Your task to perform on an android device: Open the phone app and click the voicemail tab. Image 0: 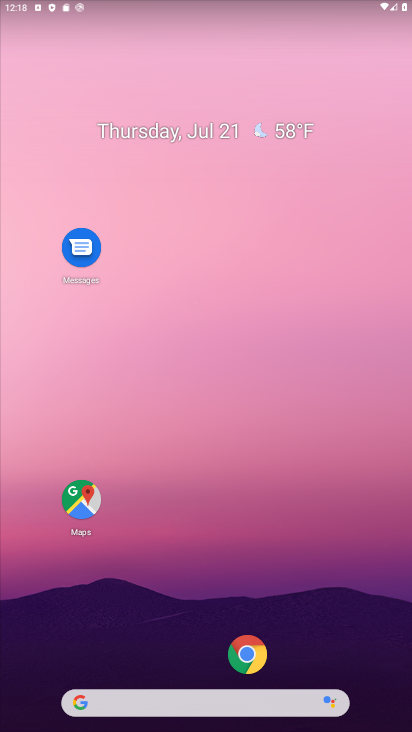
Step 0: drag from (151, 651) to (71, 165)
Your task to perform on an android device: Open the phone app and click the voicemail tab. Image 1: 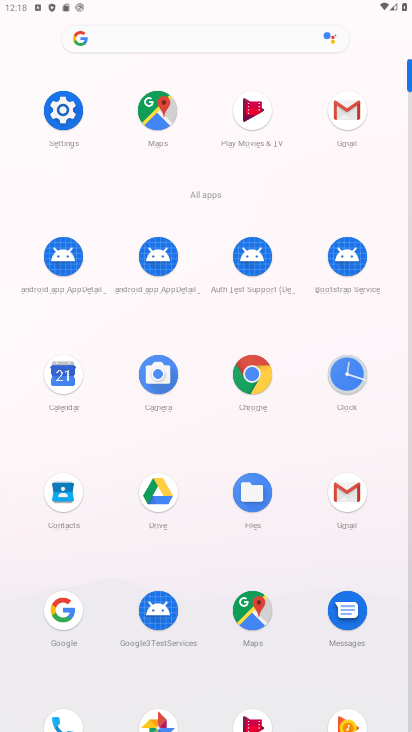
Step 1: click (63, 712)
Your task to perform on an android device: Open the phone app and click the voicemail tab. Image 2: 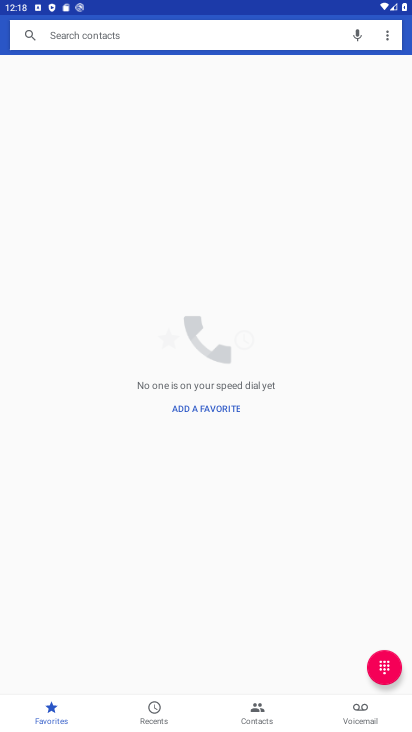
Step 2: click (358, 726)
Your task to perform on an android device: Open the phone app and click the voicemail tab. Image 3: 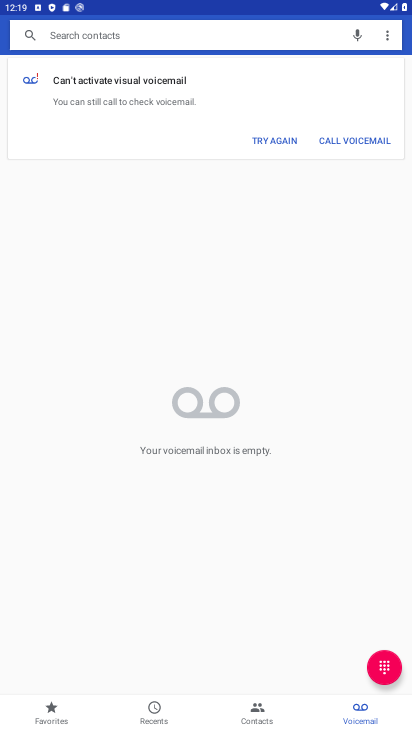
Step 3: task complete